Your task to perform on an android device: Go to Wikipedia Image 0: 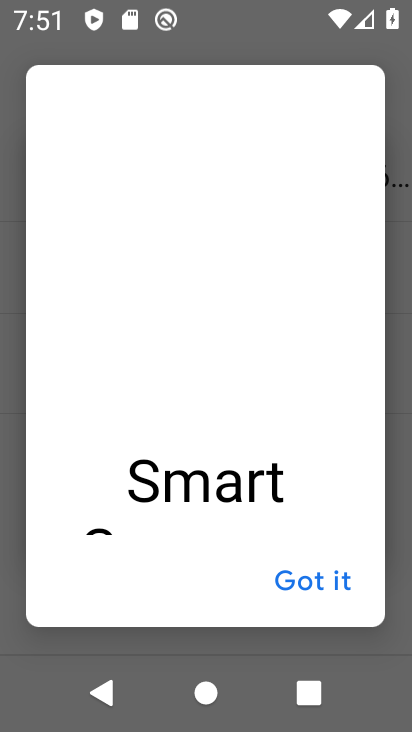
Step 0: press home button
Your task to perform on an android device: Go to Wikipedia Image 1: 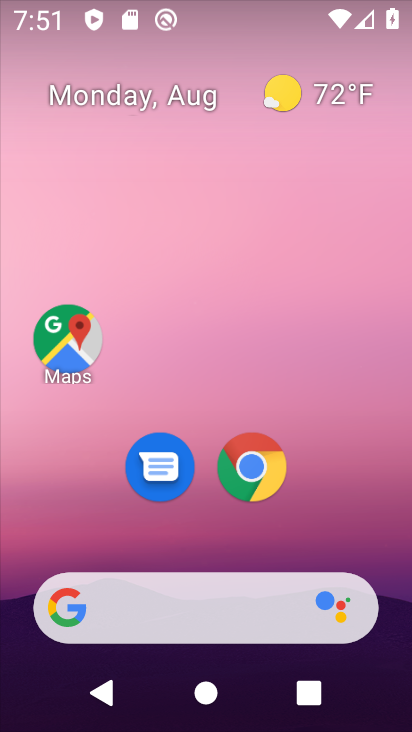
Step 1: drag from (349, 516) to (371, 150)
Your task to perform on an android device: Go to Wikipedia Image 2: 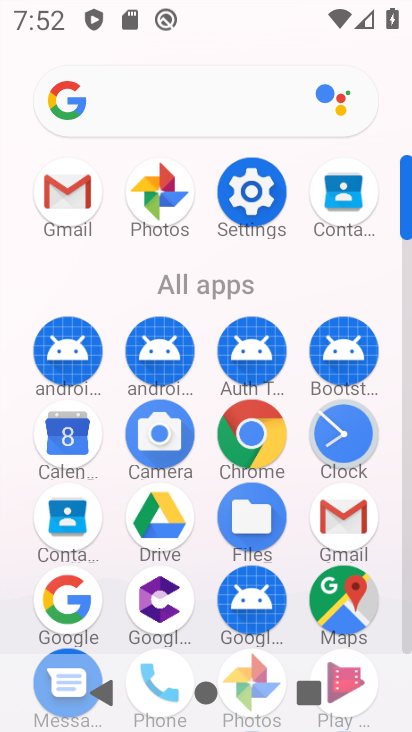
Step 2: click (246, 437)
Your task to perform on an android device: Go to Wikipedia Image 3: 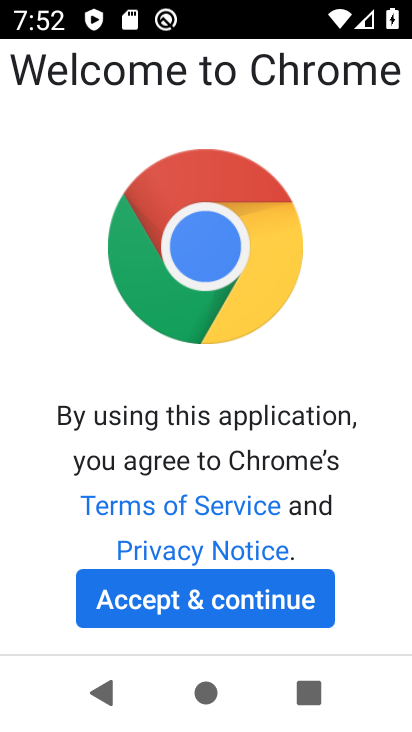
Step 3: click (202, 596)
Your task to perform on an android device: Go to Wikipedia Image 4: 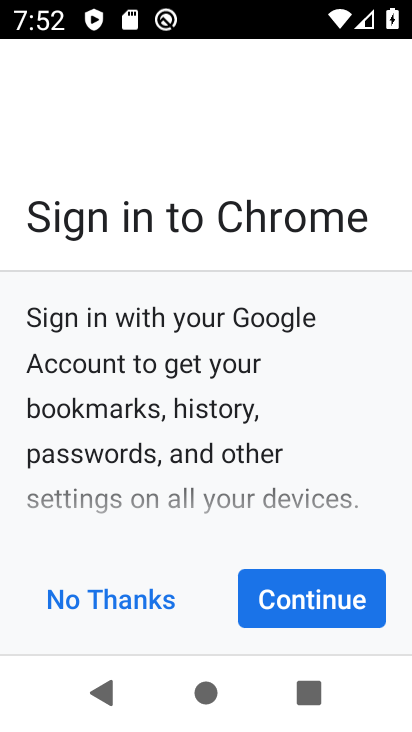
Step 4: click (288, 606)
Your task to perform on an android device: Go to Wikipedia Image 5: 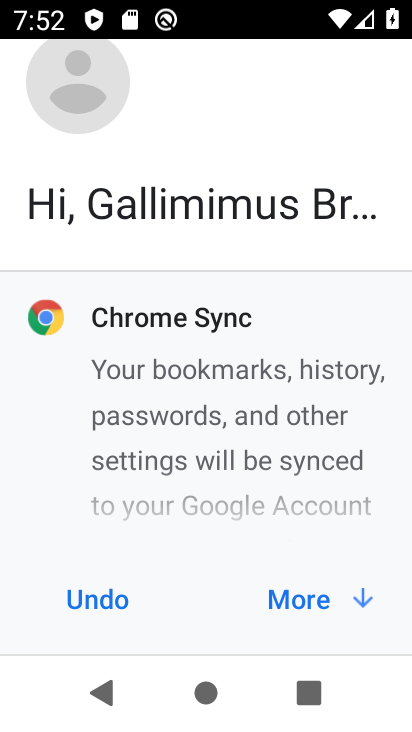
Step 5: click (313, 599)
Your task to perform on an android device: Go to Wikipedia Image 6: 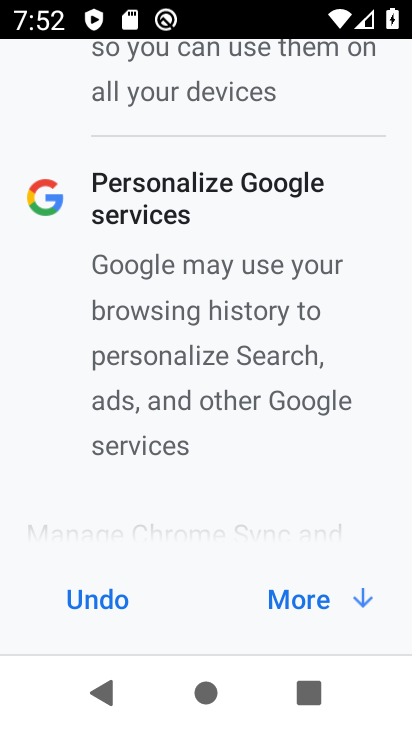
Step 6: click (313, 599)
Your task to perform on an android device: Go to Wikipedia Image 7: 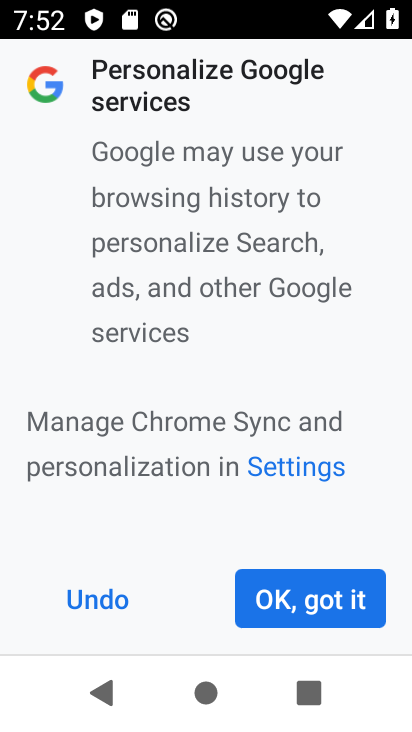
Step 7: click (313, 599)
Your task to perform on an android device: Go to Wikipedia Image 8: 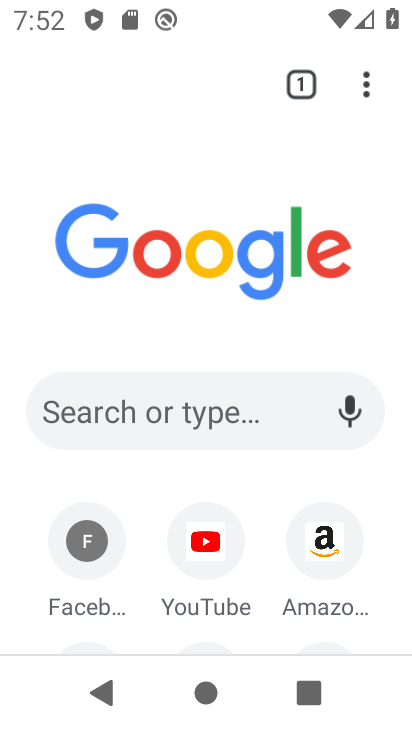
Step 8: click (226, 410)
Your task to perform on an android device: Go to Wikipedia Image 9: 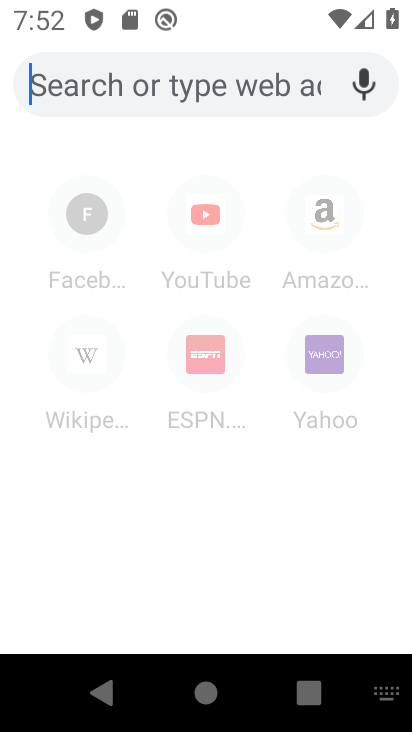
Step 9: type "wikipedia"
Your task to perform on an android device: Go to Wikipedia Image 10: 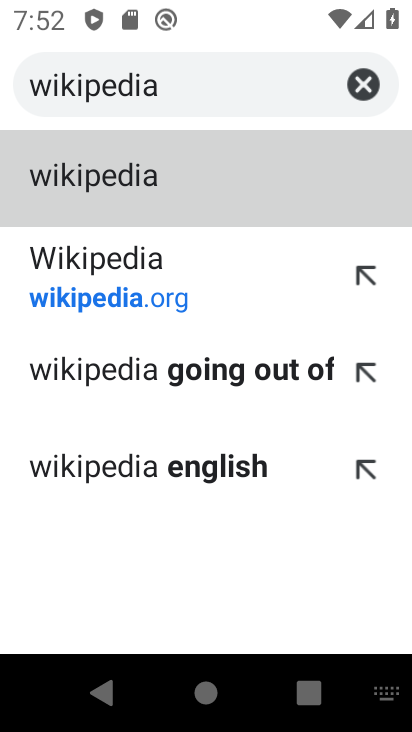
Step 10: click (247, 181)
Your task to perform on an android device: Go to Wikipedia Image 11: 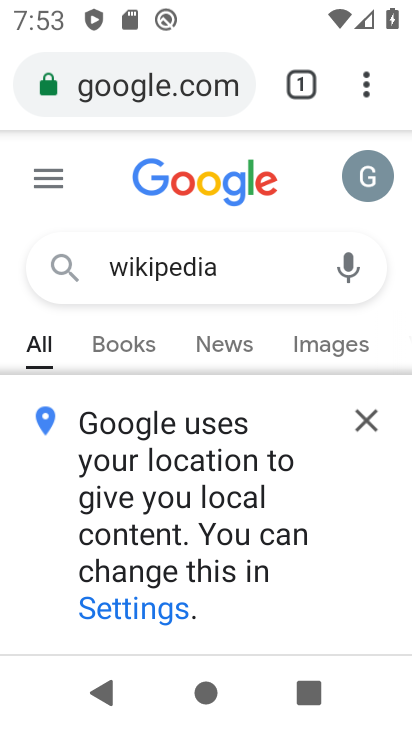
Step 11: task complete